Your task to perform on an android device: add a label to a message in the gmail app Image 0: 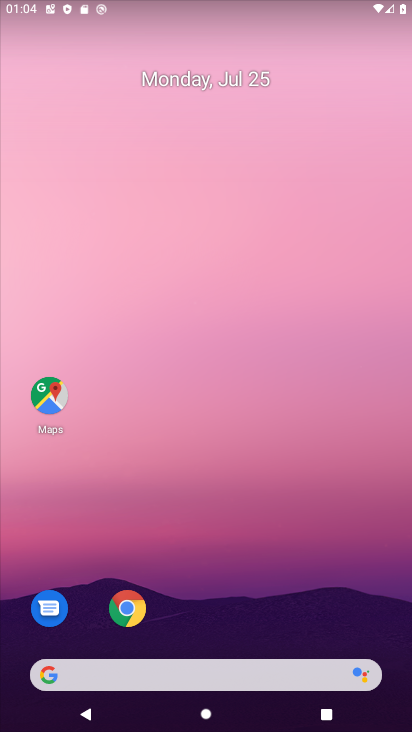
Step 0: drag from (211, 664) to (198, 5)
Your task to perform on an android device: add a label to a message in the gmail app Image 1: 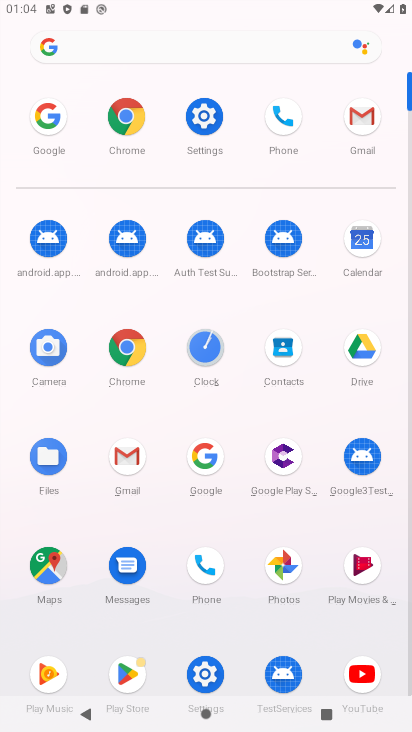
Step 1: click (130, 463)
Your task to perform on an android device: add a label to a message in the gmail app Image 2: 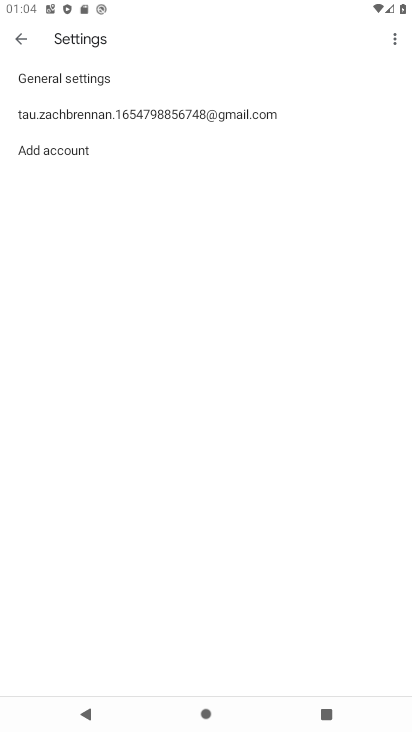
Step 2: click (17, 48)
Your task to perform on an android device: add a label to a message in the gmail app Image 3: 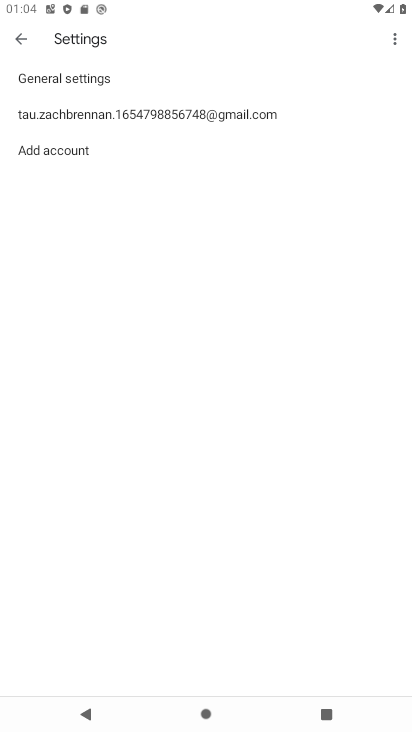
Step 3: click (22, 44)
Your task to perform on an android device: add a label to a message in the gmail app Image 4: 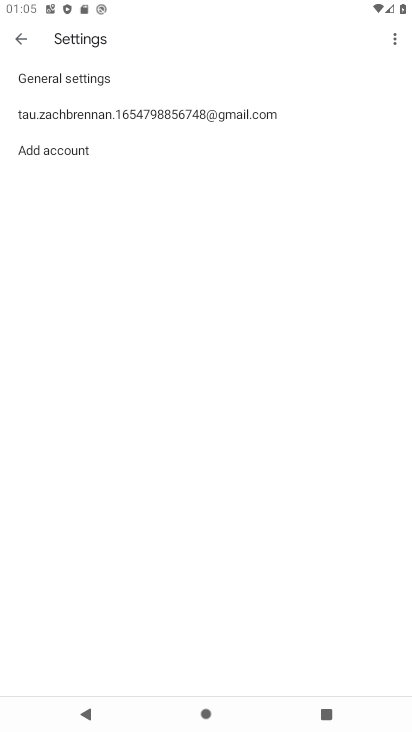
Step 4: click (19, 34)
Your task to perform on an android device: add a label to a message in the gmail app Image 5: 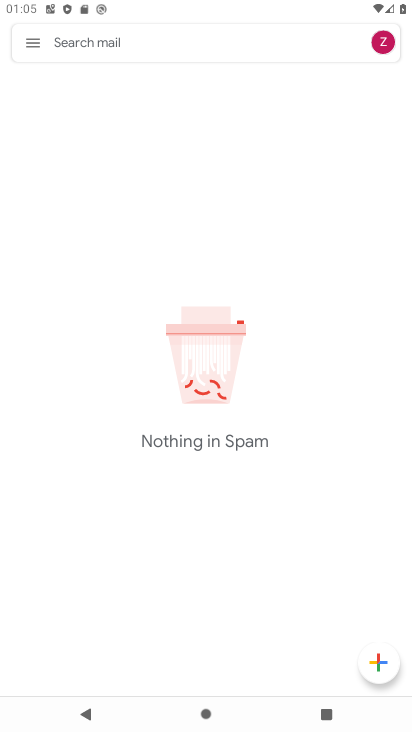
Step 5: task complete